Your task to perform on an android device: turn on airplane mode Image 0: 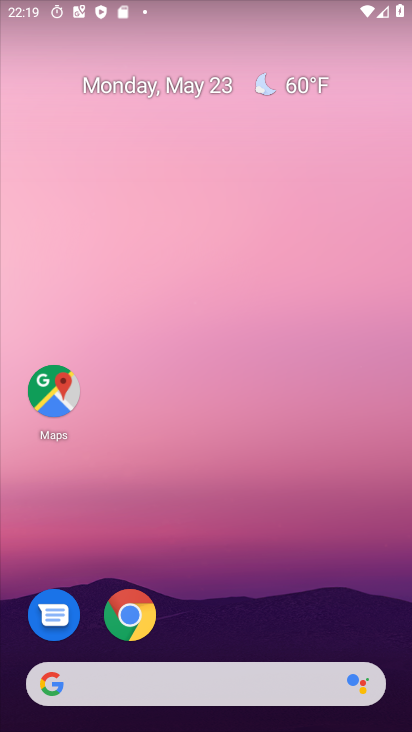
Step 0: drag from (232, 611) to (253, 166)
Your task to perform on an android device: turn on airplane mode Image 1: 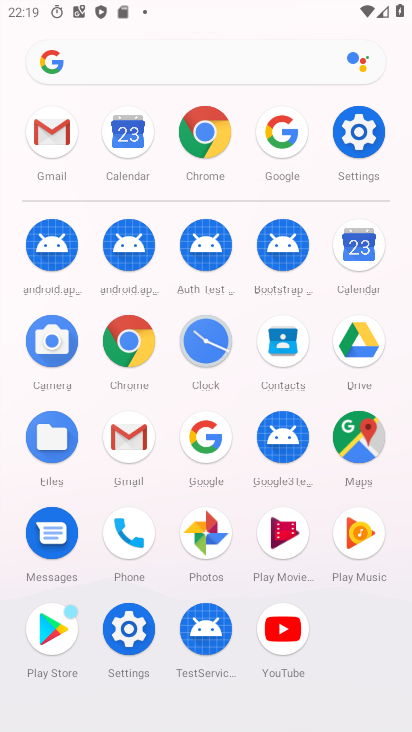
Step 1: click (371, 120)
Your task to perform on an android device: turn on airplane mode Image 2: 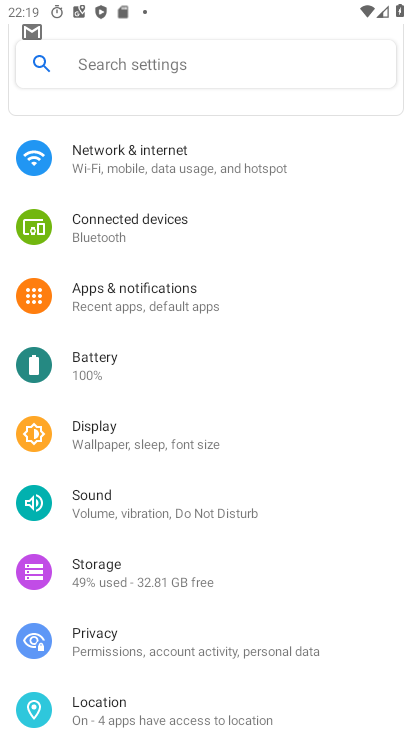
Step 2: click (152, 167)
Your task to perform on an android device: turn on airplane mode Image 3: 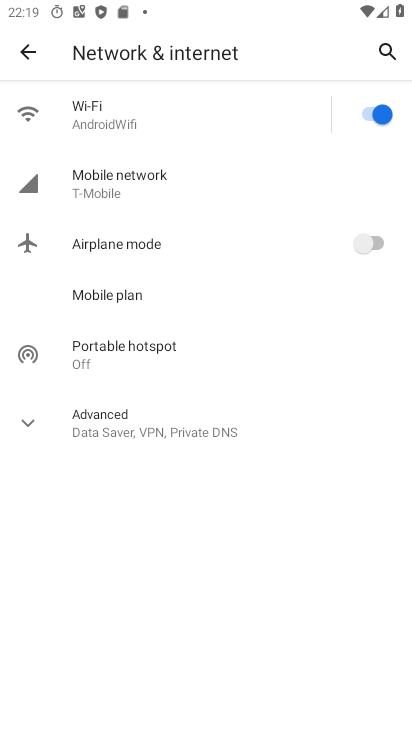
Step 3: click (365, 247)
Your task to perform on an android device: turn on airplane mode Image 4: 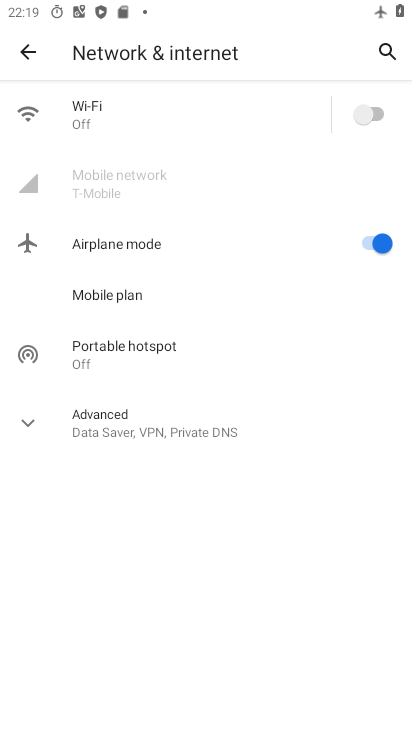
Step 4: task complete